Your task to perform on an android device: Open the phone app and click the voicemail tab. Image 0: 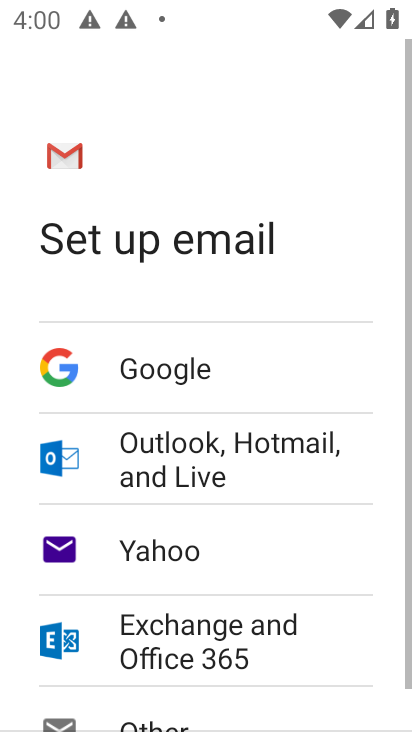
Step 0: press home button
Your task to perform on an android device: Open the phone app and click the voicemail tab. Image 1: 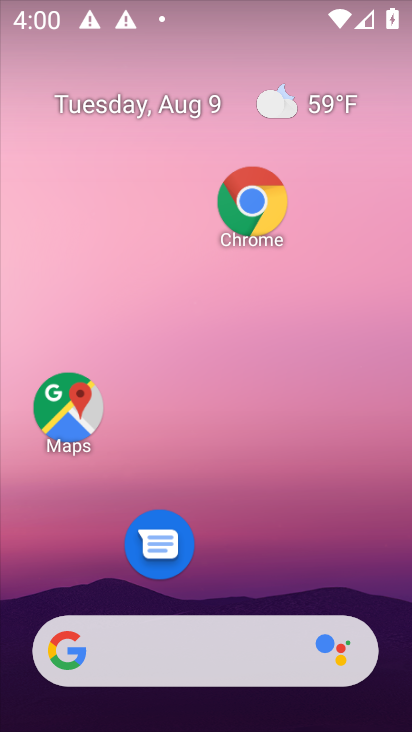
Step 1: drag from (139, 624) to (181, 232)
Your task to perform on an android device: Open the phone app and click the voicemail tab. Image 2: 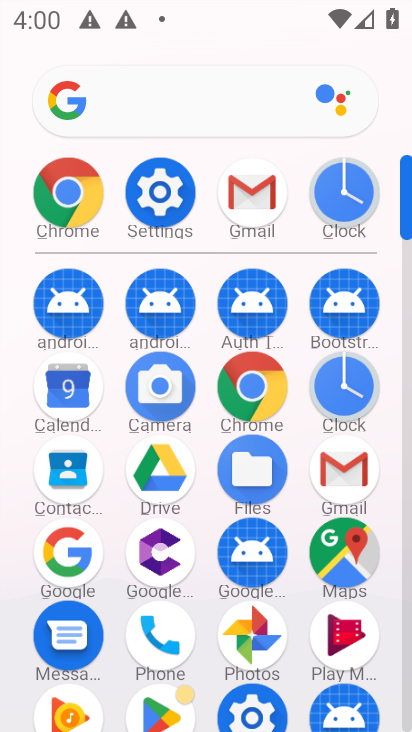
Step 2: click (161, 635)
Your task to perform on an android device: Open the phone app and click the voicemail tab. Image 3: 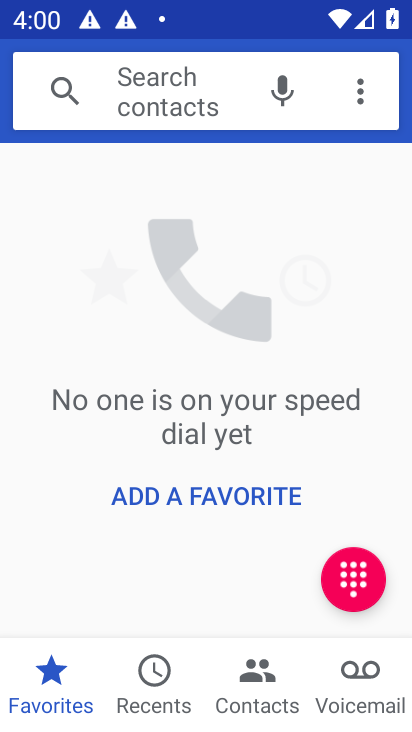
Step 3: click (342, 690)
Your task to perform on an android device: Open the phone app and click the voicemail tab. Image 4: 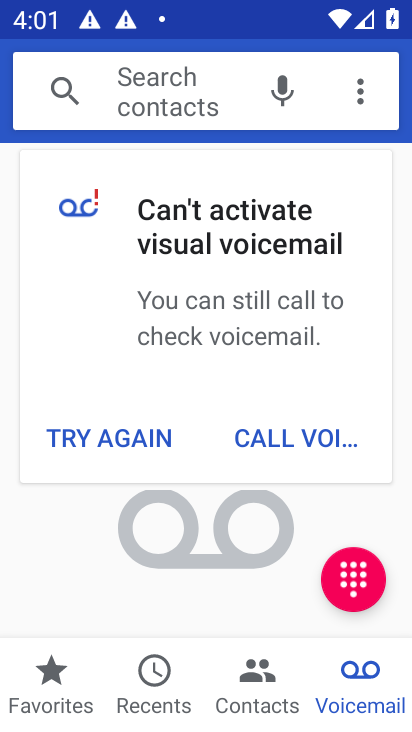
Step 4: task complete